Your task to perform on an android device: Open display settings Image 0: 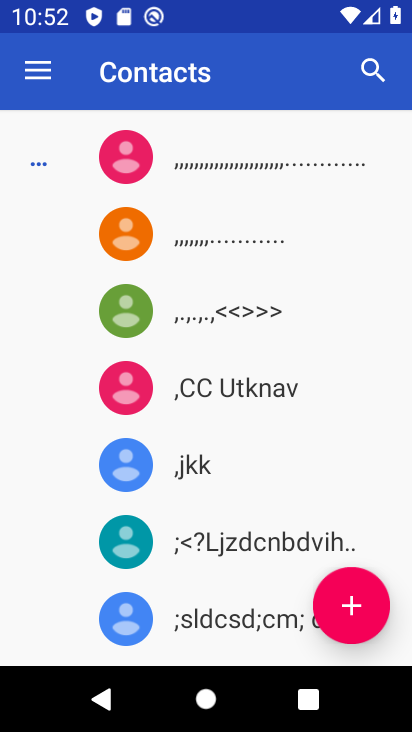
Step 0: press home button
Your task to perform on an android device: Open display settings Image 1: 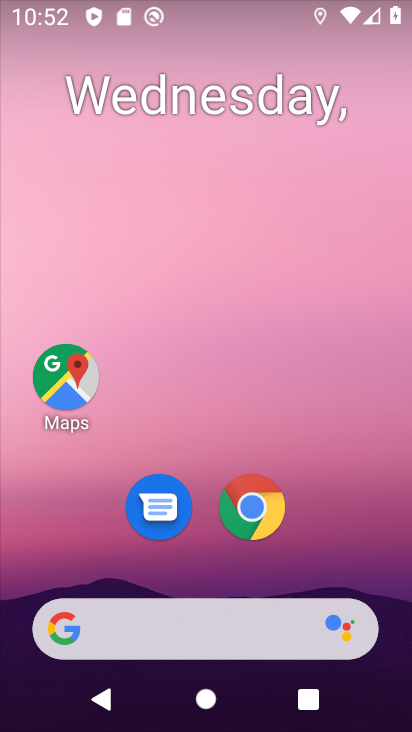
Step 1: drag from (350, 539) to (347, 188)
Your task to perform on an android device: Open display settings Image 2: 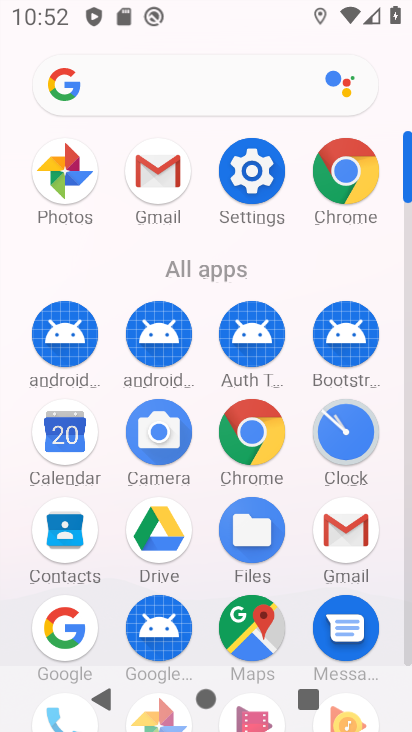
Step 2: click (265, 175)
Your task to perform on an android device: Open display settings Image 3: 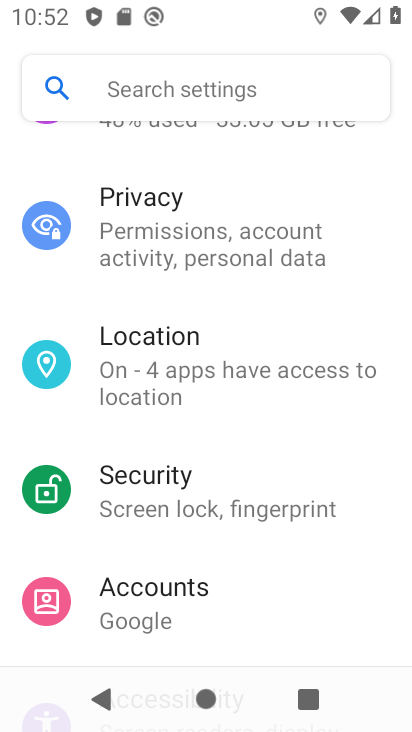
Step 3: drag from (344, 588) to (357, 413)
Your task to perform on an android device: Open display settings Image 4: 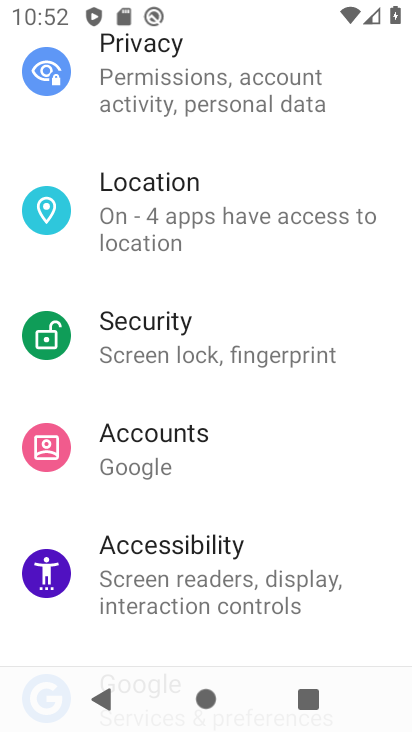
Step 4: drag from (378, 512) to (373, 365)
Your task to perform on an android device: Open display settings Image 5: 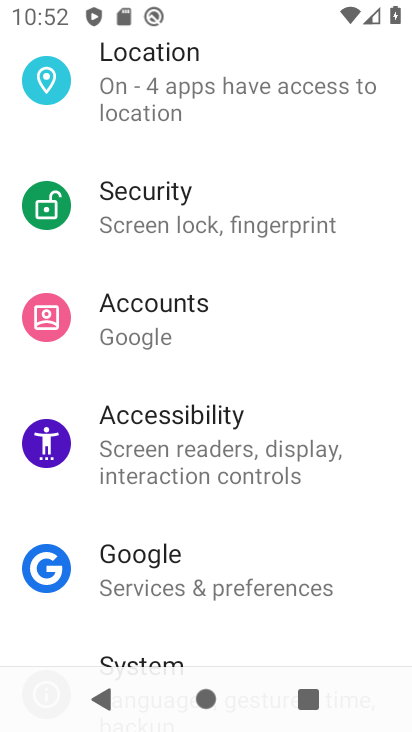
Step 5: drag from (345, 513) to (350, 351)
Your task to perform on an android device: Open display settings Image 6: 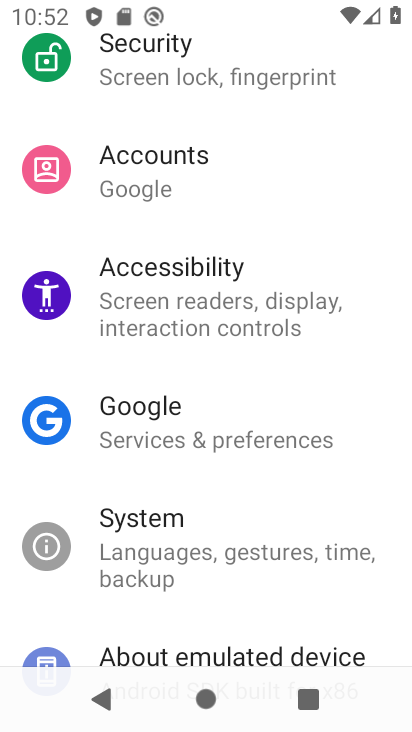
Step 6: drag from (372, 497) to (372, 353)
Your task to perform on an android device: Open display settings Image 7: 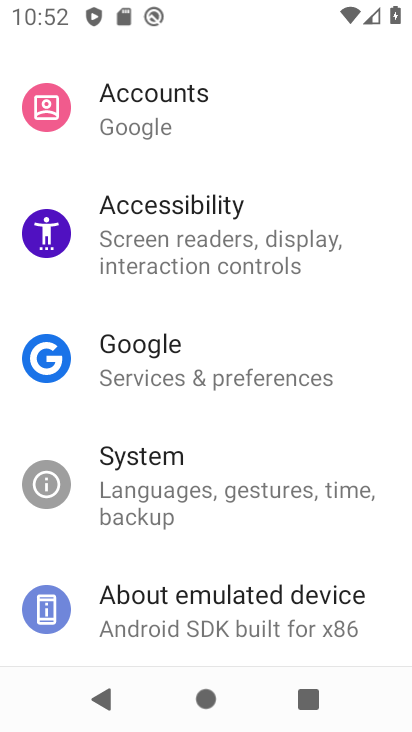
Step 7: drag from (373, 447) to (372, 315)
Your task to perform on an android device: Open display settings Image 8: 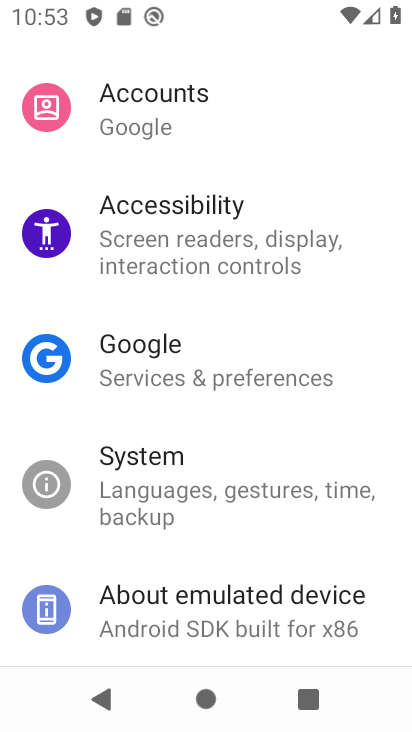
Step 8: drag from (368, 315) to (376, 445)
Your task to perform on an android device: Open display settings Image 9: 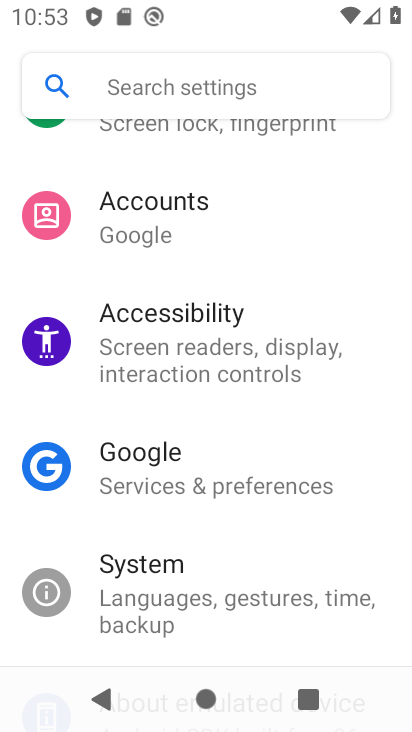
Step 9: drag from (354, 247) to (349, 422)
Your task to perform on an android device: Open display settings Image 10: 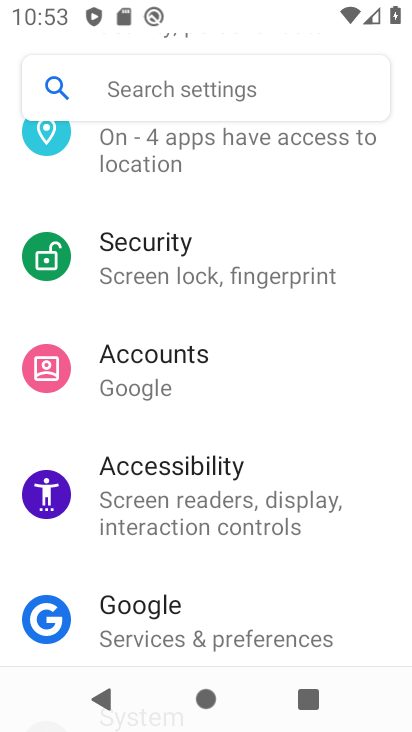
Step 10: drag from (371, 240) to (344, 389)
Your task to perform on an android device: Open display settings Image 11: 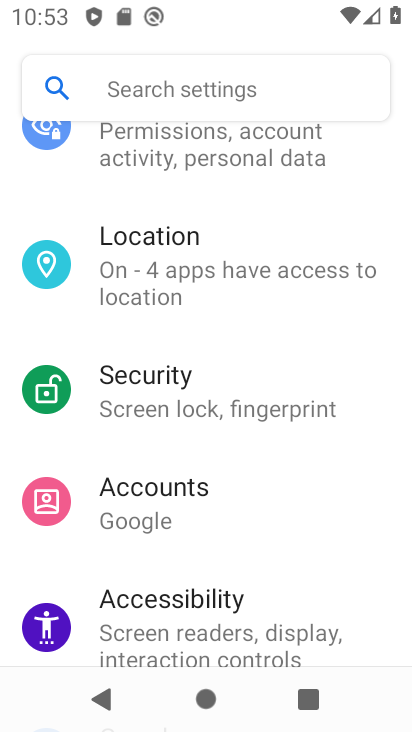
Step 11: drag from (363, 213) to (338, 444)
Your task to perform on an android device: Open display settings Image 12: 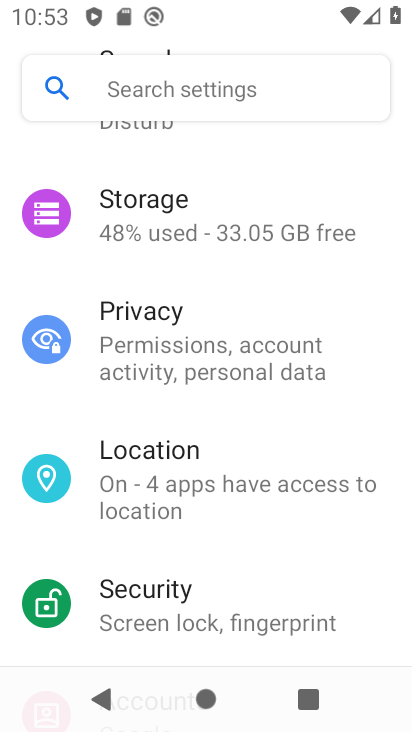
Step 12: drag from (381, 210) to (366, 453)
Your task to perform on an android device: Open display settings Image 13: 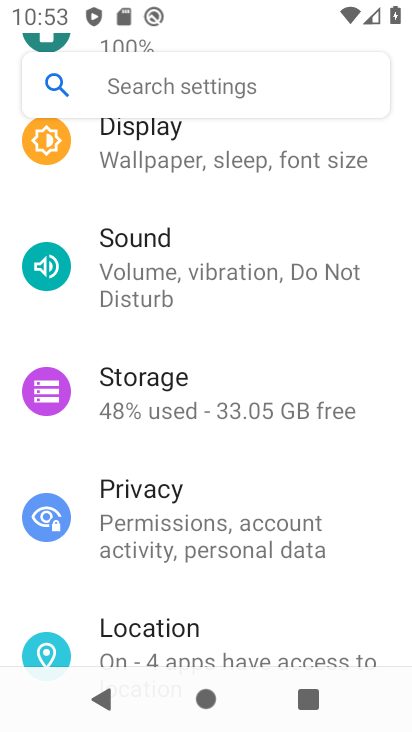
Step 13: click (295, 160)
Your task to perform on an android device: Open display settings Image 14: 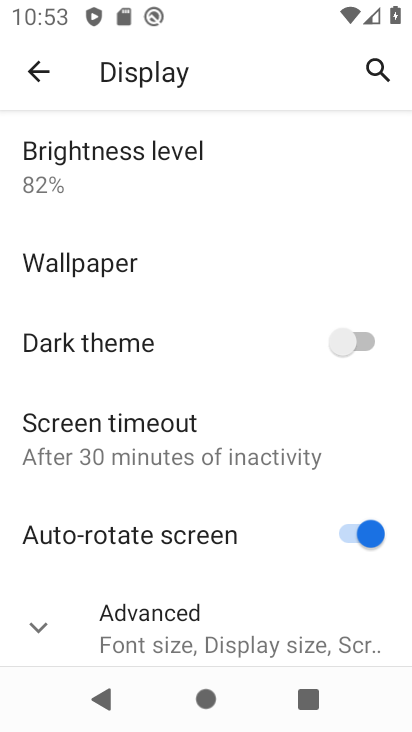
Step 14: drag from (285, 548) to (273, 283)
Your task to perform on an android device: Open display settings Image 15: 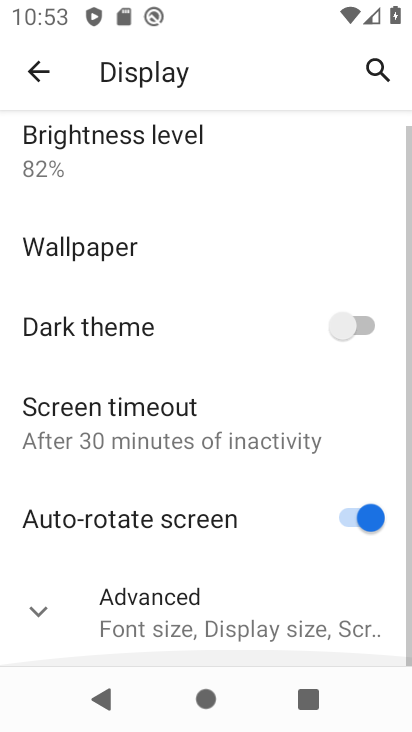
Step 15: click (163, 597)
Your task to perform on an android device: Open display settings Image 16: 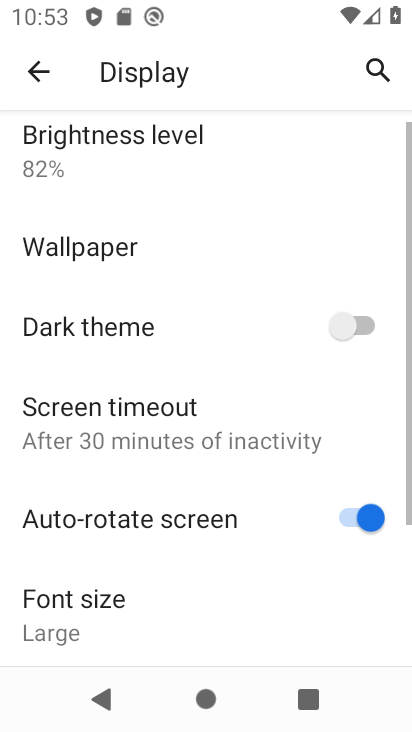
Step 16: task complete